Your task to perform on an android device: check google app version Image 0: 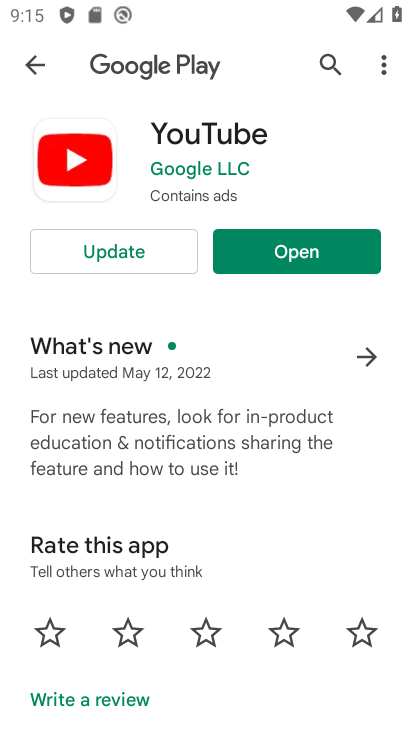
Step 0: press home button
Your task to perform on an android device: check google app version Image 1: 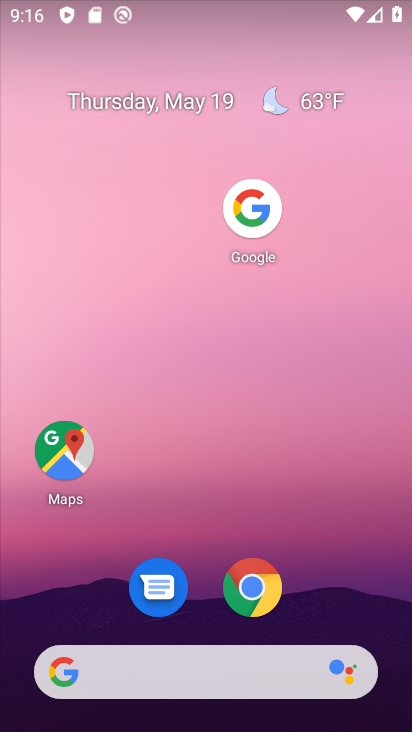
Step 1: click (256, 220)
Your task to perform on an android device: check google app version Image 2: 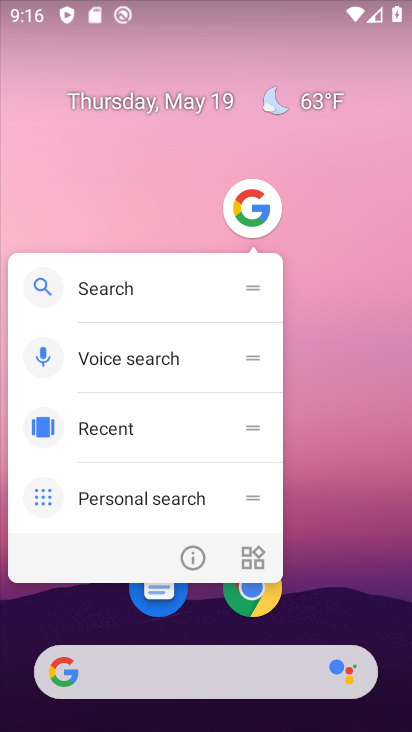
Step 2: click (191, 556)
Your task to perform on an android device: check google app version Image 3: 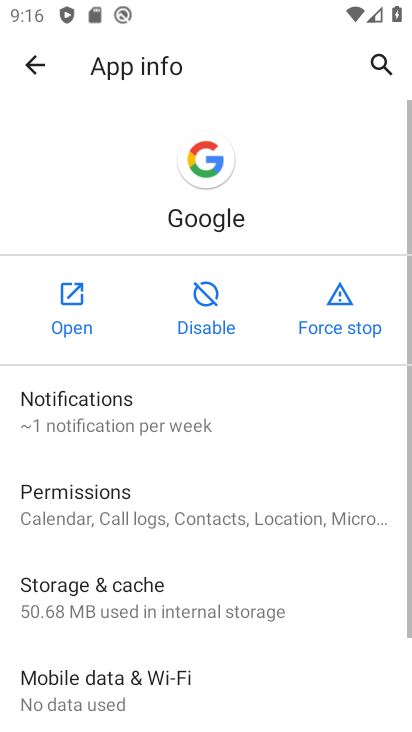
Step 3: drag from (263, 592) to (196, 95)
Your task to perform on an android device: check google app version Image 4: 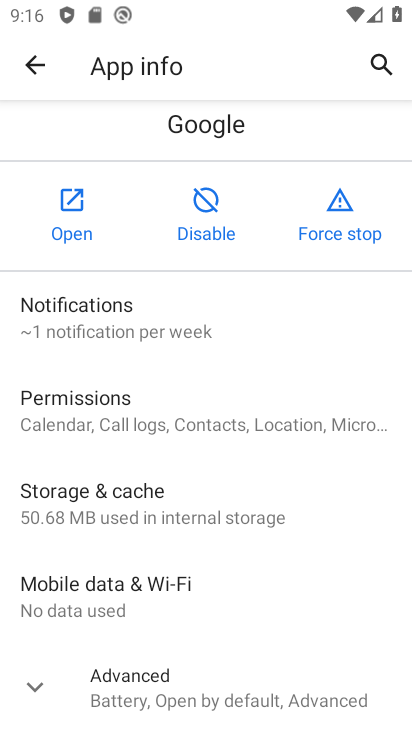
Step 4: click (179, 670)
Your task to perform on an android device: check google app version Image 5: 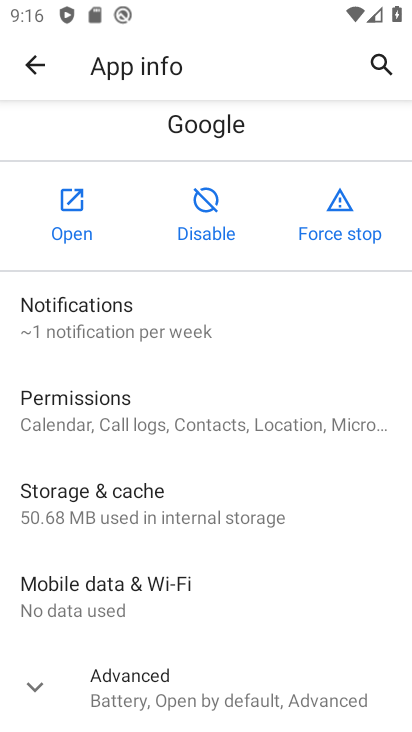
Step 5: task complete